Your task to perform on an android device: move an email to a new category in the gmail app Image 0: 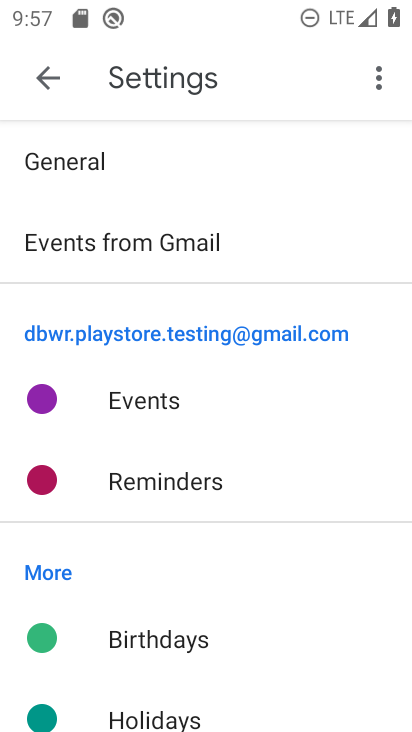
Step 0: press home button
Your task to perform on an android device: move an email to a new category in the gmail app Image 1: 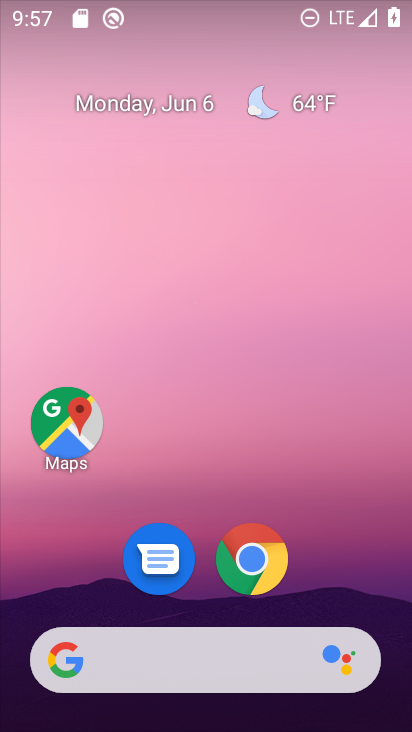
Step 1: drag from (230, 729) to (226, 116)
Your task to perform on an android device: move an email to a new category in the gmail app Image 2: 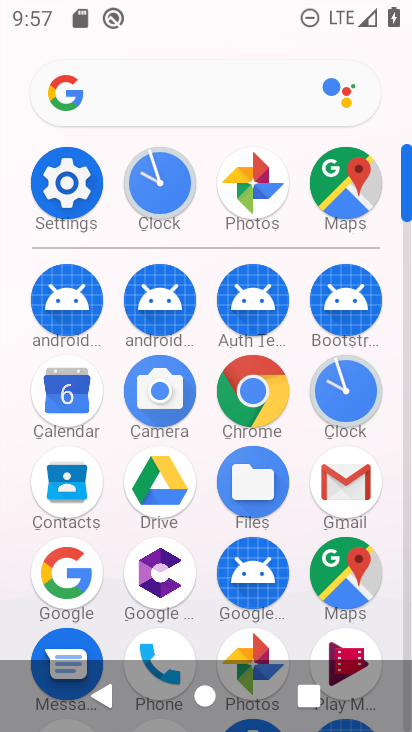
Step 2: click (340, 486)
Your task to perform on an android device: move an email to a new category in the gmail app Image 3: 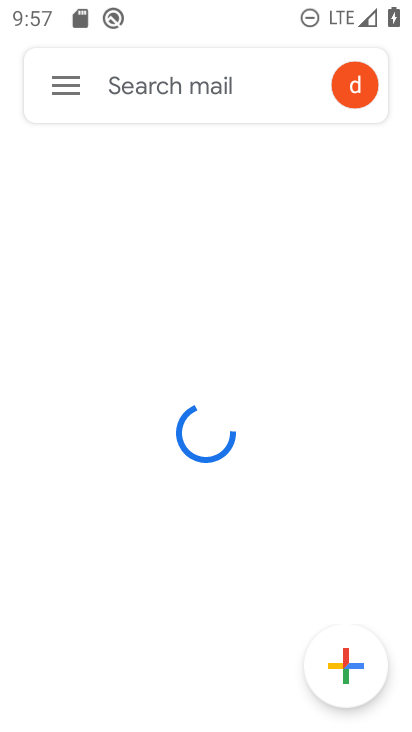
Step 3: click (64, 83)
Your task to perform on an android device: move an email to a new category in the gmail app Image 4: 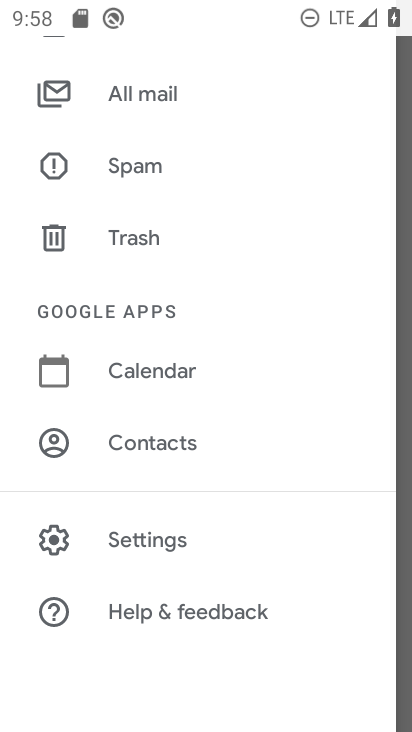
Step 4: drag from (182, 126) to (203, 496)
Your task to perform on an android device: move an email to a new category in the gmail app Image 5: 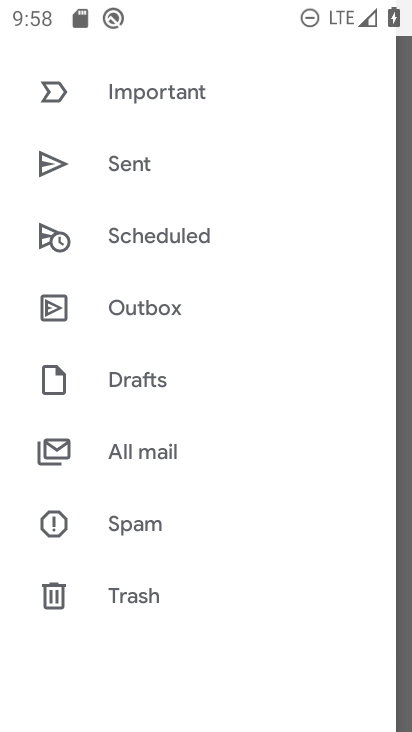
Step 5: drag from (268, 114) to (319, 599)
Your task to perform on an android device: move an email to a new category in the gmail app Image 6: 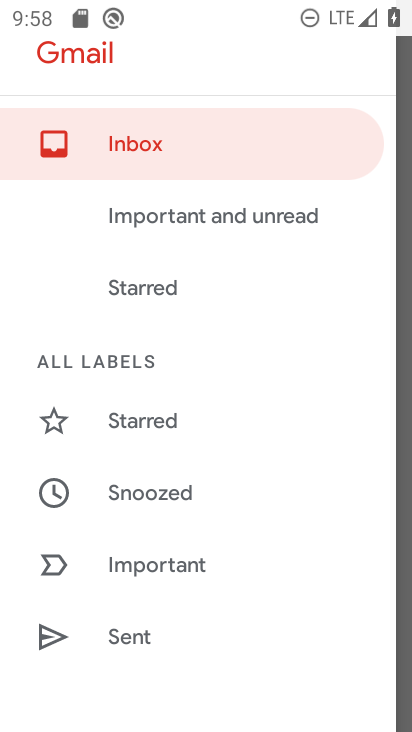
Step 6: click (146, 143)
Your task to perform on an android device: move an email to a new category in the gmail app Image 7: 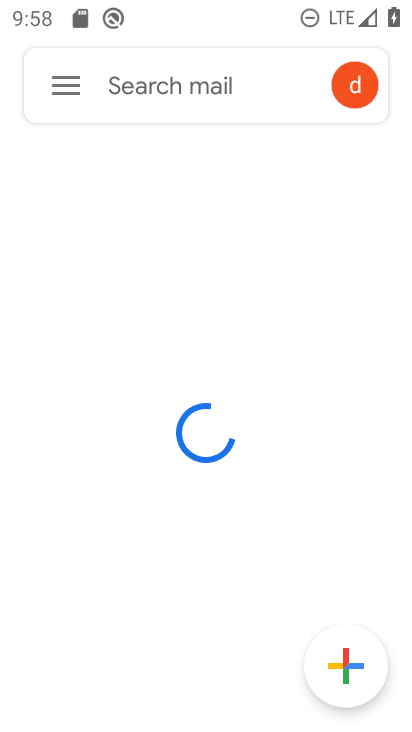
Step 7: task complete